Your task to perform on an android device: delete a single message in the gmail app Image 0: 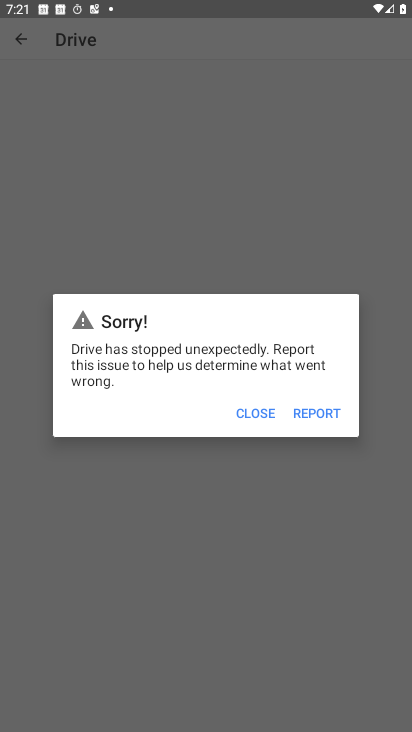
Step 0: press home button
Your task to perform on an android device: delete a single message in the gmail app Image 1: 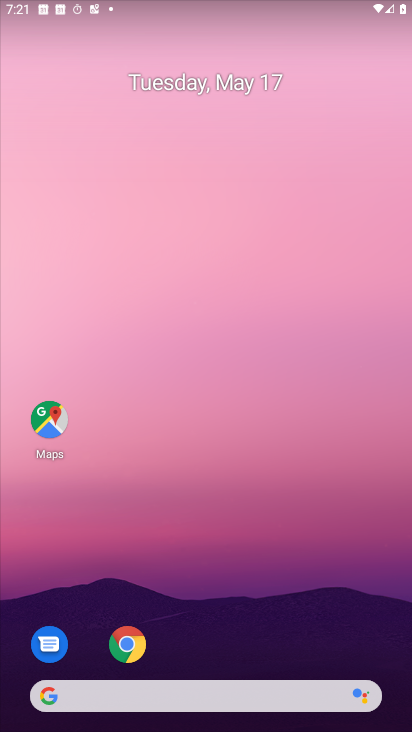
Step 1: drag from (377, 655) to (165, 14)
Your task to perform on an android device: delete a single message in the gmail app Image 2: 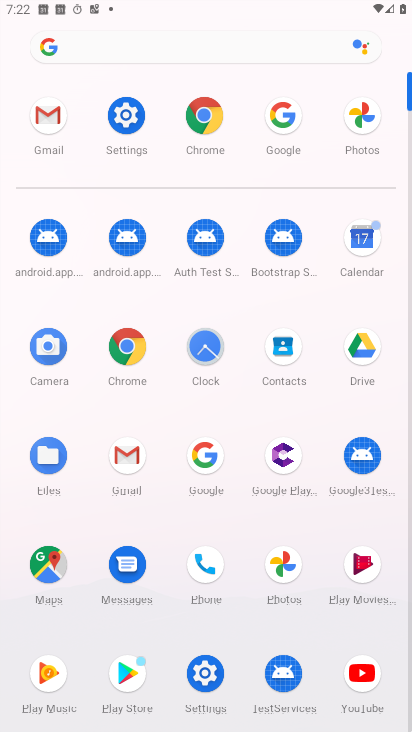
Step 2: click (125, 457)
Your task to perform on an android device: delete a single message in the gmail app Image 3: 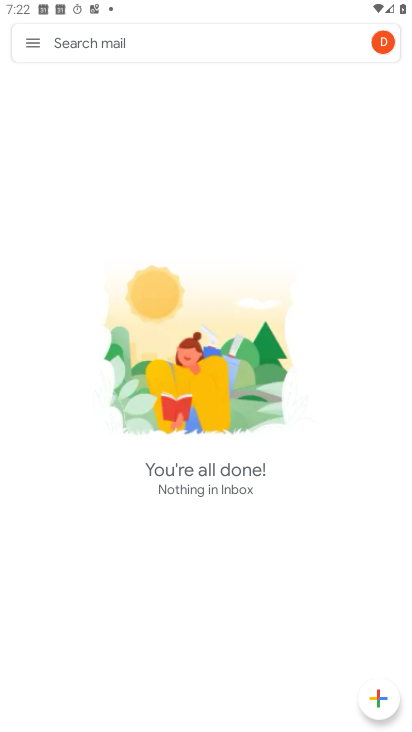
Step 3: task complete